Your task to perform on an android device: Open sound settings Image 0: 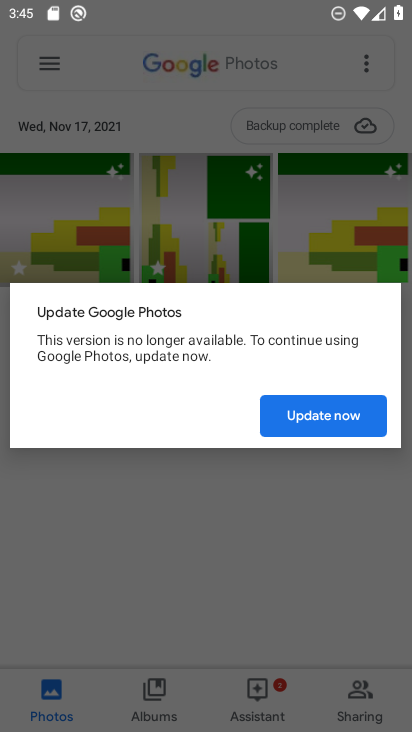
Step 0: press back button
Your task to perform on an android device: Open sound settings Image 1: 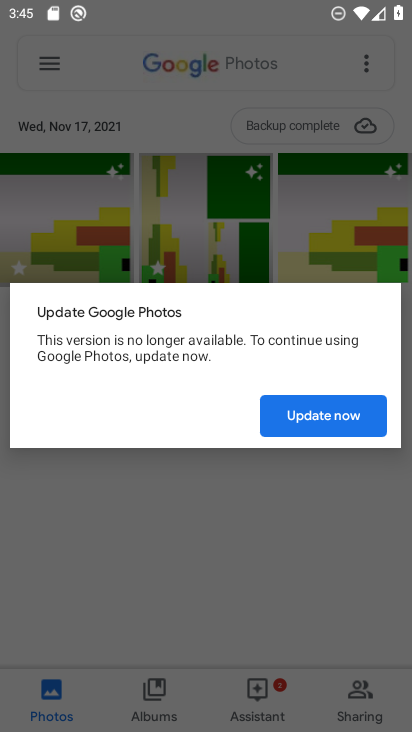
Step 1: press home button
Your task to perform on an android device: Open sound settings Image 2: 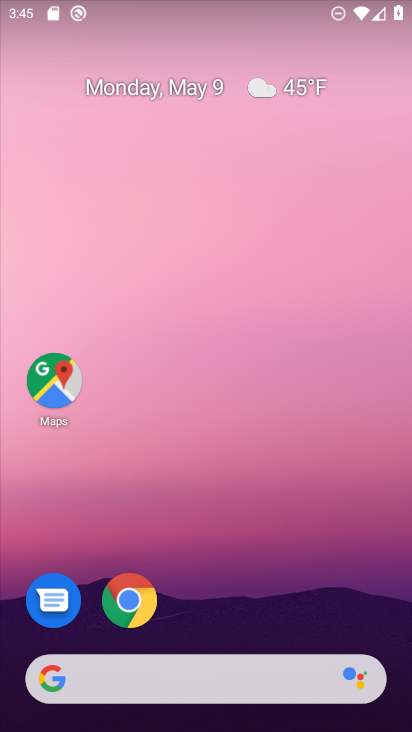
Step 2: drag from (198, 318) to (181, 9)
Your task to perform on an android device: Open sound settings Image 3: 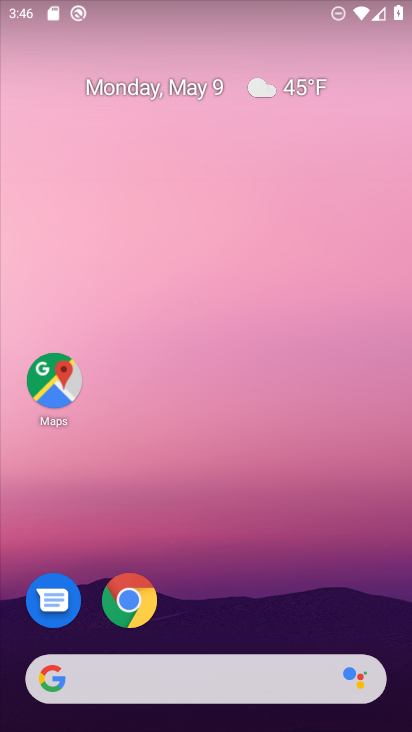
Step 3: drag from (16, 657) to (4, 56)
Your task to perform on an android device: Open sound settings Image 4: 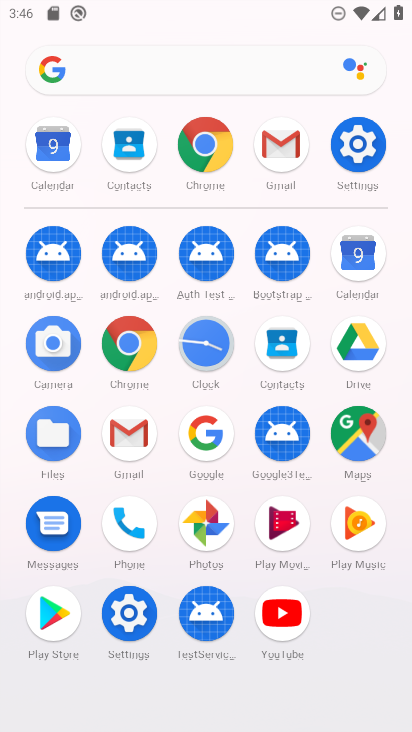
Step 4: drag from (9, 616) to (24, 201)
Your task to perform on an android device: Open sound settings Image 5: 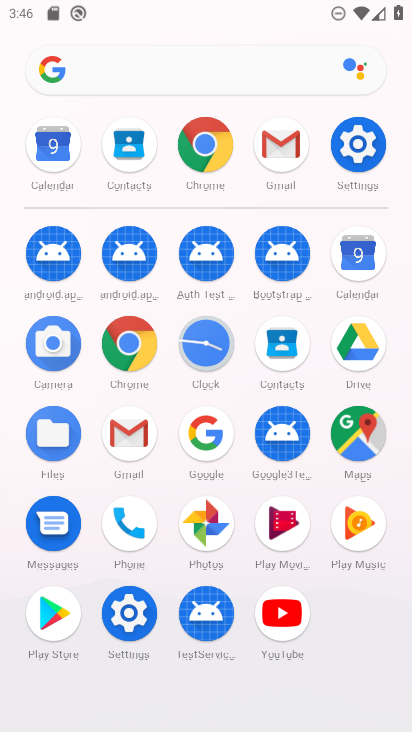
Step 5: click (357, 141)
Your task to perform on an android device: Open sound settings Image 6: 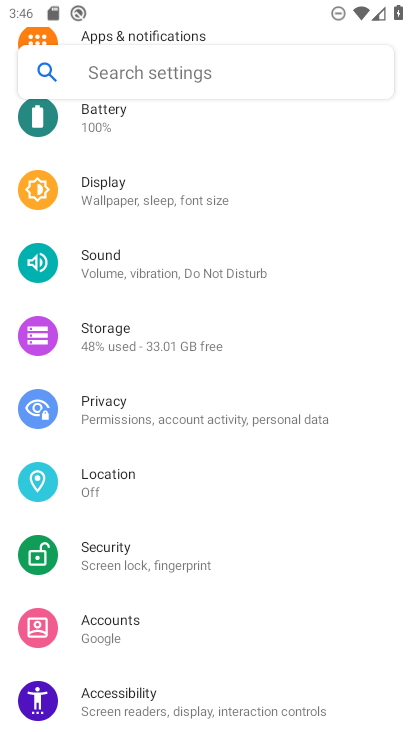
Step 6: click (171, 262)
Your task to perform on an android device: Open sound settings Image 7: 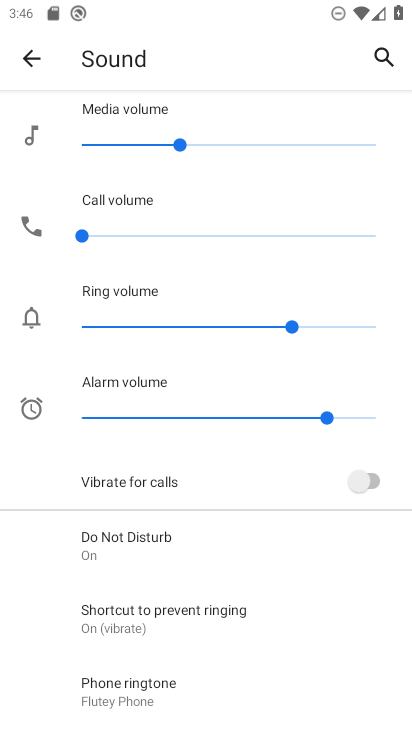
Step 7: task complete